Your task to perform on an android device: turn on airplane mode Image 0: 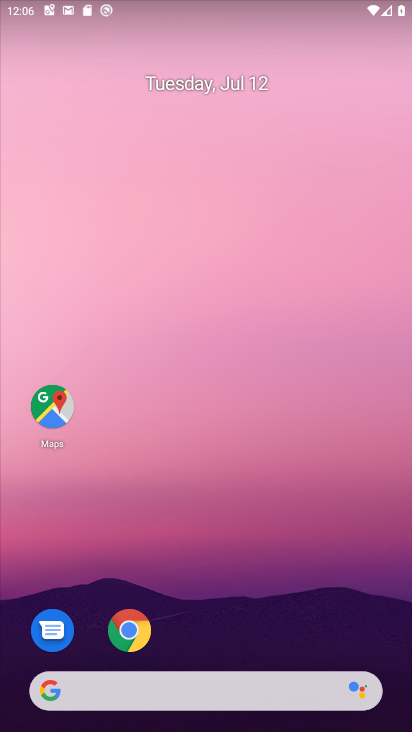
Step 0: drag from (153, 580) to (99, 164)
Your task to perform on an android device: turn on airplane mode Image 1: 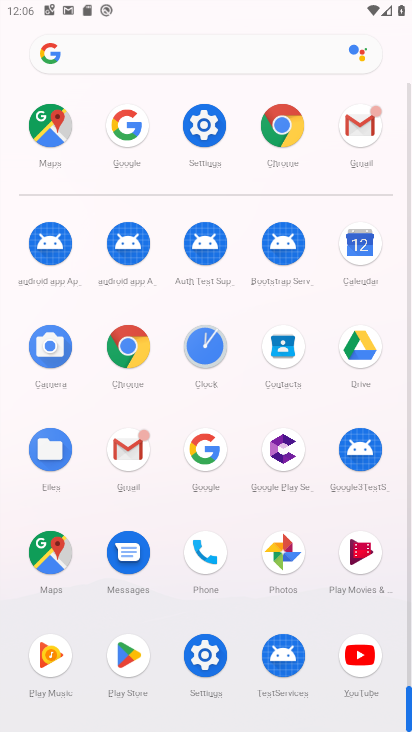
Step 1: click (201, 112)
Your task to perform on an android device: turn on airplane mode Image 2: 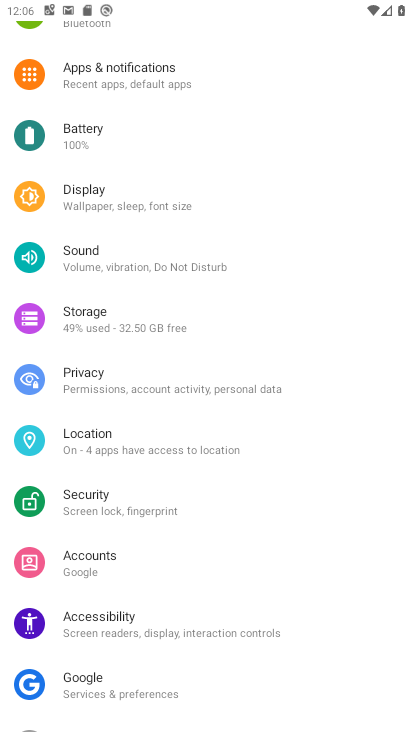
Step 2: drag from (135, 119) to (152, 468)
Your task to perform on an android device: turn on airplane mode Image 3: 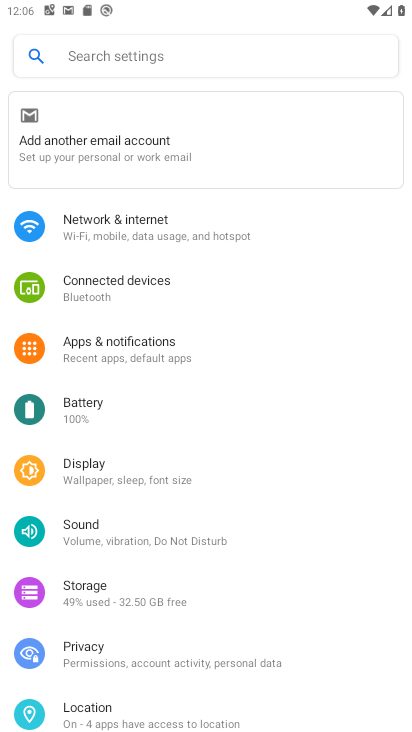
Step 3: click (136, 216)
Your task to perform on an android device: turn on airplane mode Image 4: 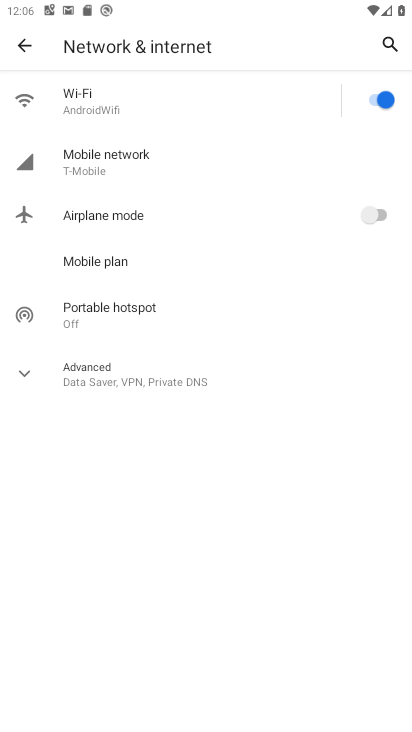
Step 4: click (107, 221)
Your task to perform on an android device: turn on airplane mode Image 5: 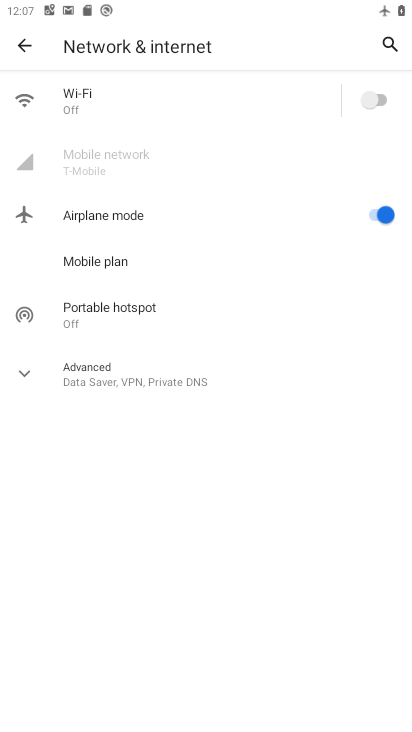
Step 5: task complete